Your task to perform on an android device: Go to Wikipedia Image 0: 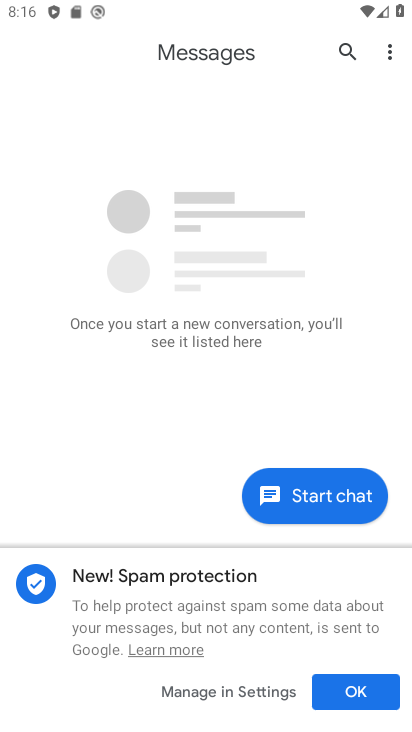
Step 0: press home button
Your task to perform on an android device: Go to Wikipedia Image 1: 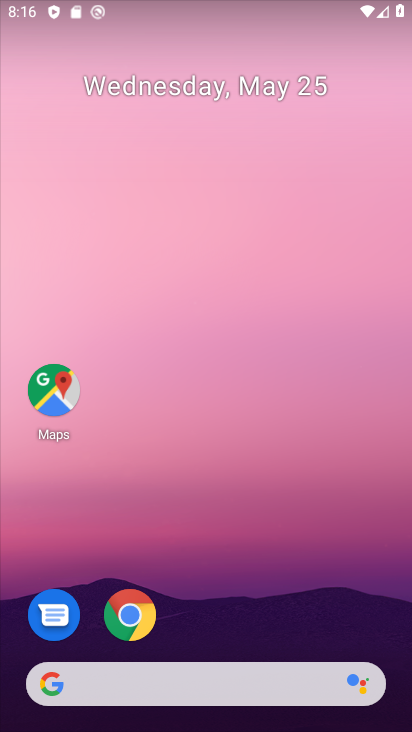
Step 1: click (244, 690)
Your task to perform on an android device: Go to Wikipedia Image 2: 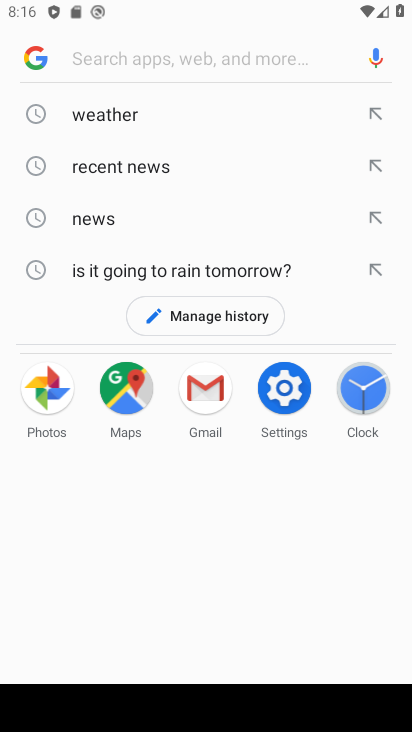
Step 2: type "wikipedia"
Your task to perform on an android device: Go to Wikipedia Image 3: 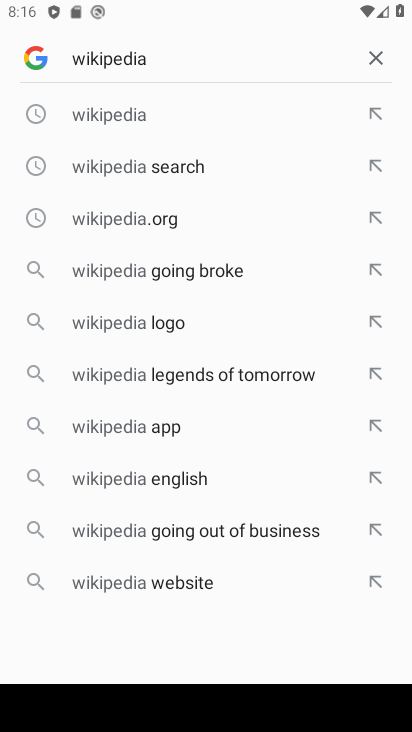
Step 3: click (172, 111)
Your task to perform on an android device: Go to Wikipedia Image 4: 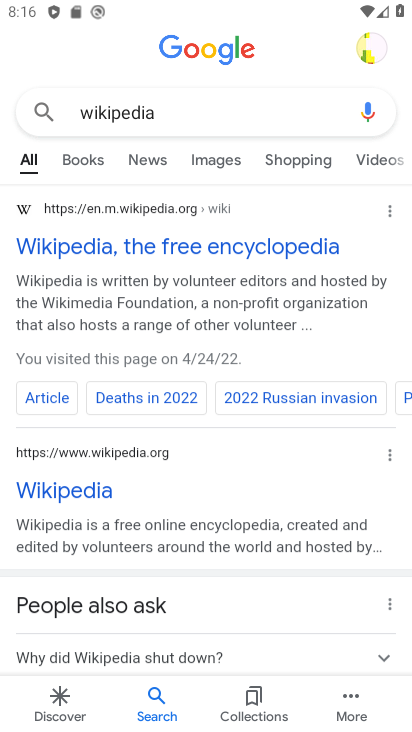
Step 4: click (183, 213)
Your task to perform on an android device: Go to Wikipedia Image 5: 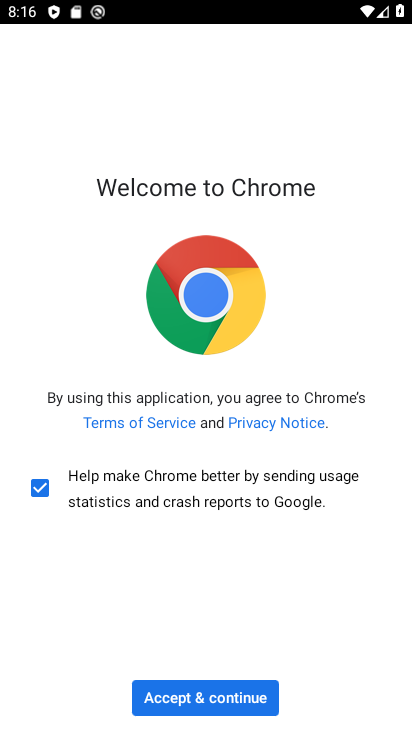
Step 5: click (231, 694)
Your task to perform on an android device: Go to Wikipedia Image 6: 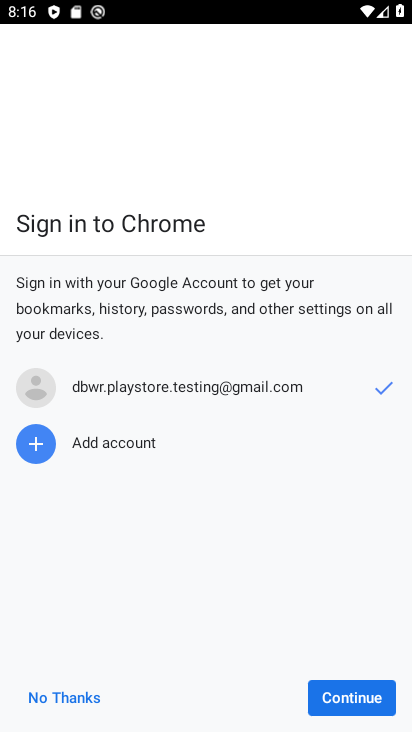
Step 6: click (357, 698)
Your task to perform on an android device: Go to Wikipedia Image 7: 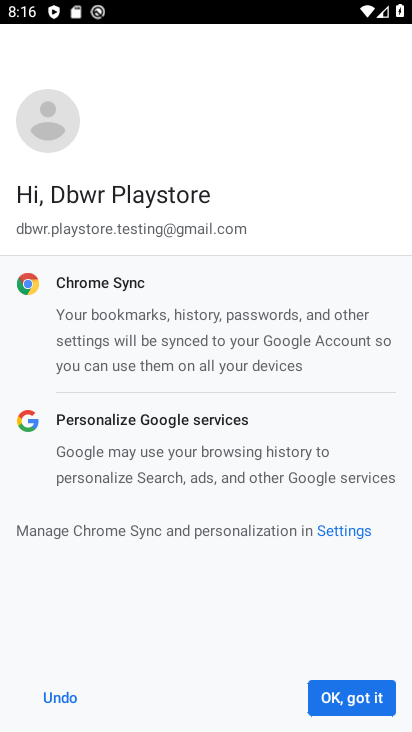
Step 7: click (357, 698)
Your task to perform on an android device: Go to Wikipedia Image 8: 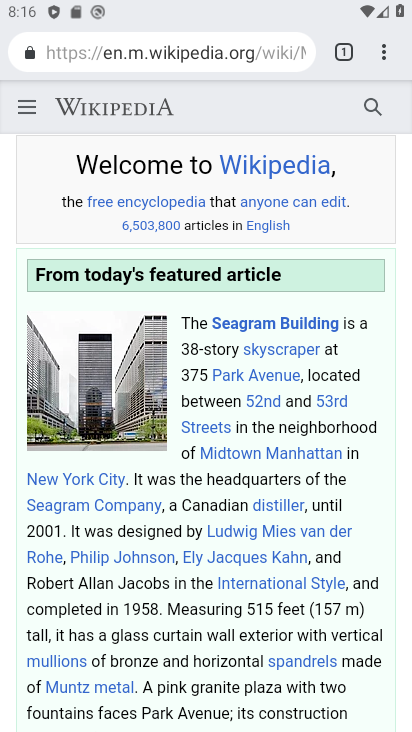
Step 8: task complete